Your task to perform on an android device: turn on priority inbox in the gmail app Image 0: 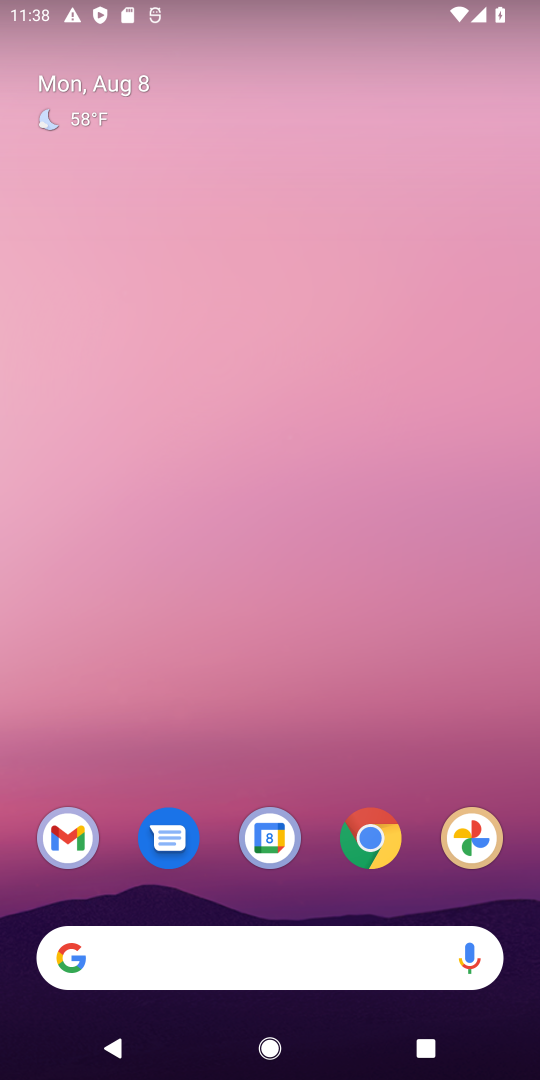
Step 0: press home button
Your task to perform on an android device: turn on priority inbox in the gmail app Image 1: 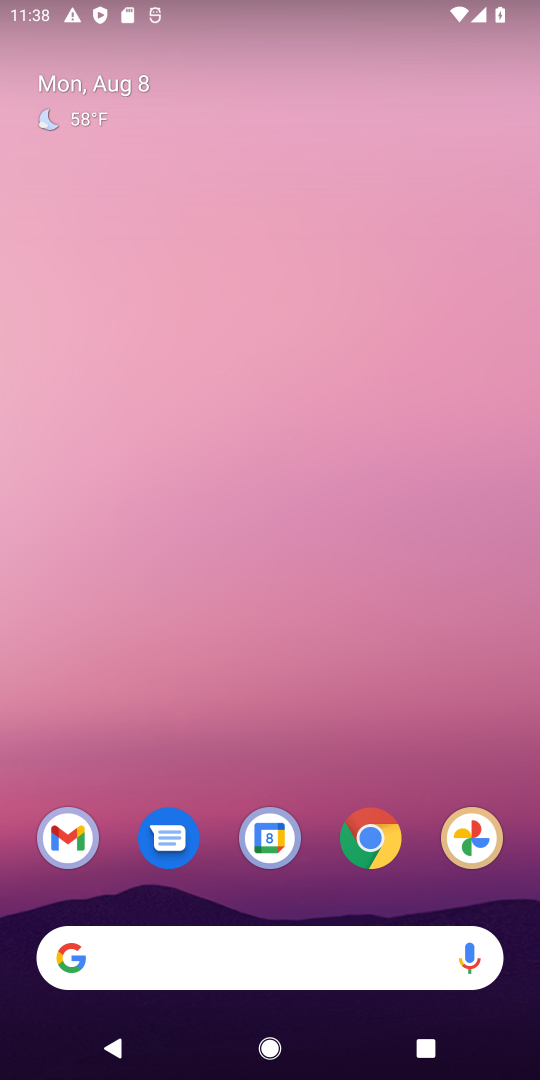
Step 1: click (69, 841)
Your task to perform on an android device: turn on priority inbox in the gmail app Image 2: 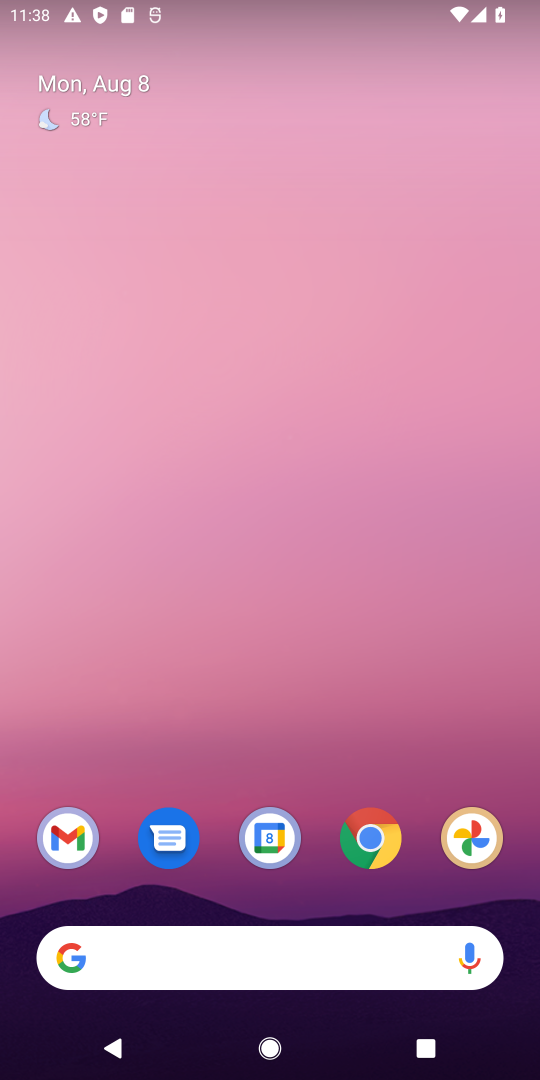
Step 2: click (71, 837)
Your task to perform on an android device: turn on priority inbox in the gmail app Image 3: 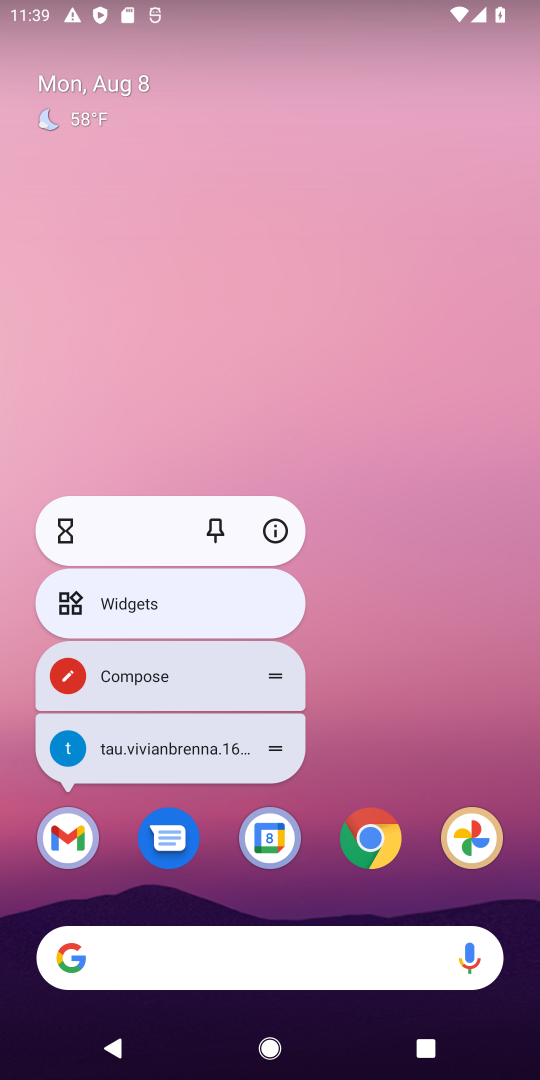
Step 3: click (71, 837)
Your task to perform on an android device: turn on priority inbox in the gmail app Image 4: 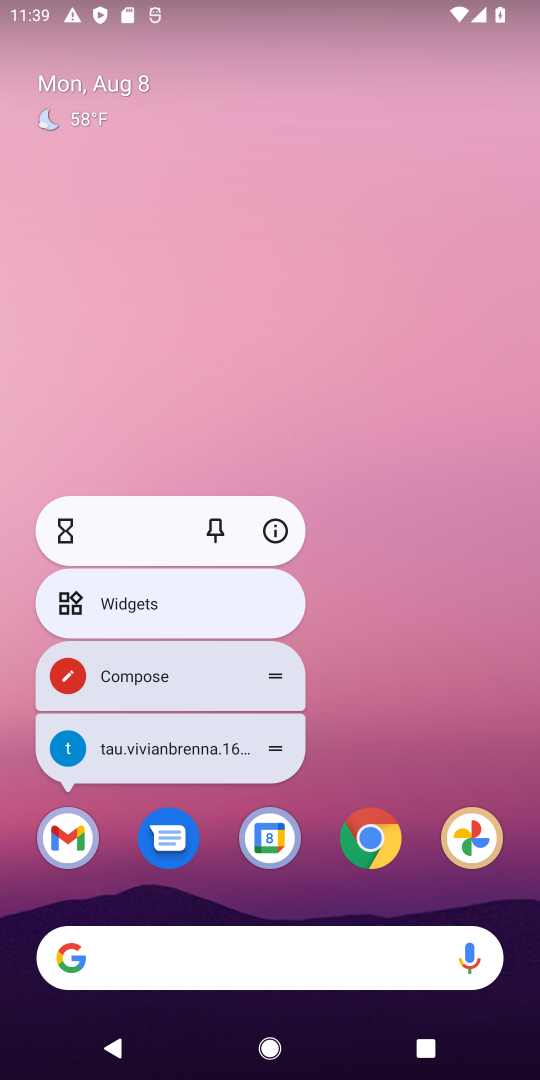
Step 4: click (71, 837)
Your task to perform on an android device: turn on priority inbox in the gmail app Image 5: 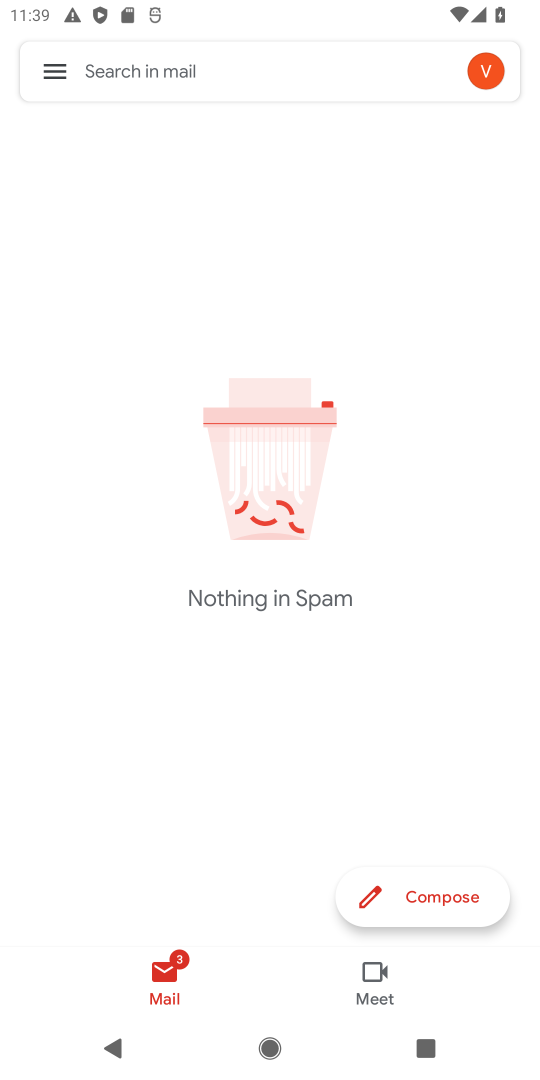
Step 5: click (63, 72)
Your task to perform on an android device: turn on priority inbox in the gmail app Image 6: 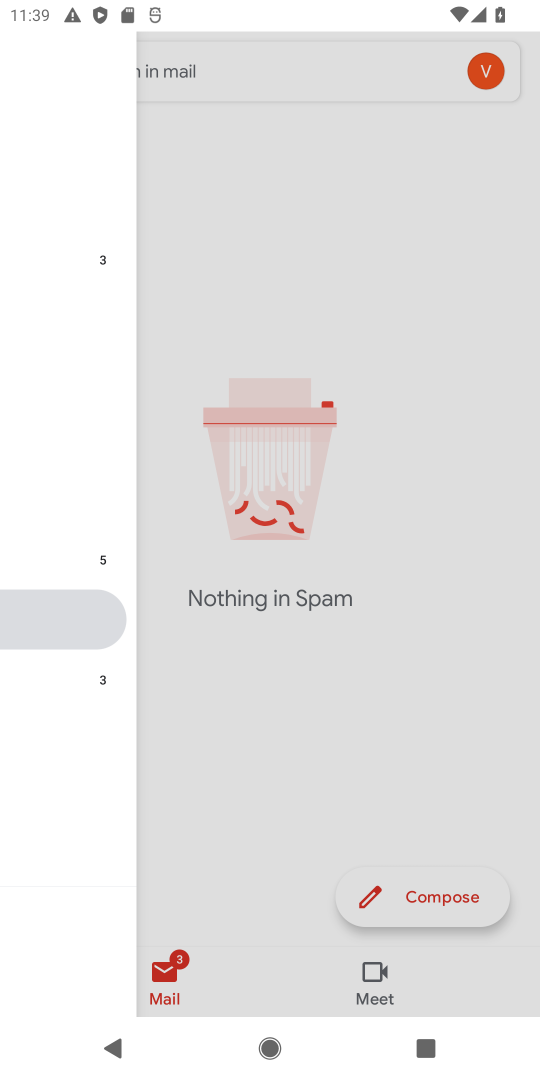
Step 6: click (63, 72)
Your task to perform on an android device: turn on priority inbox in the gmail app Image 7: 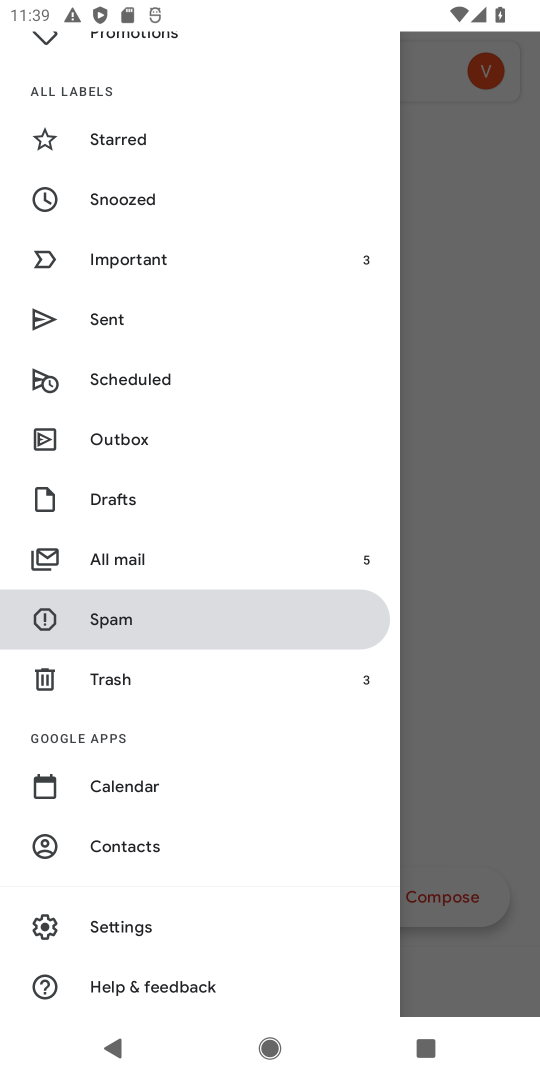
Step 7: click (113, 927)
Your task to perform on an android device: turn on priority inbox in the gmail app Image 8: 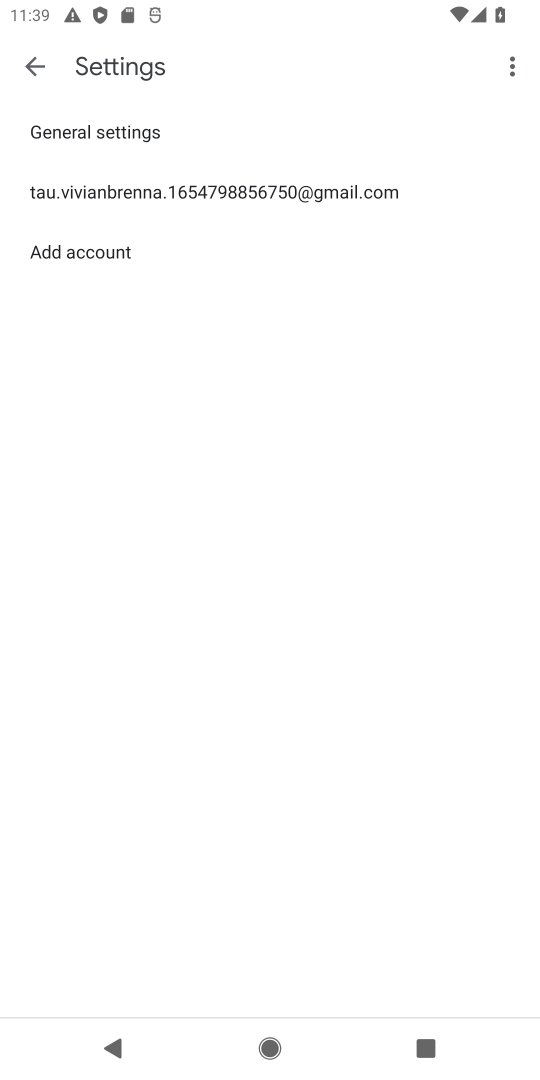
Step 8: click (158, 198)
Your task to perform on an android device: turn on priority inbox in the gmail app Image 9: 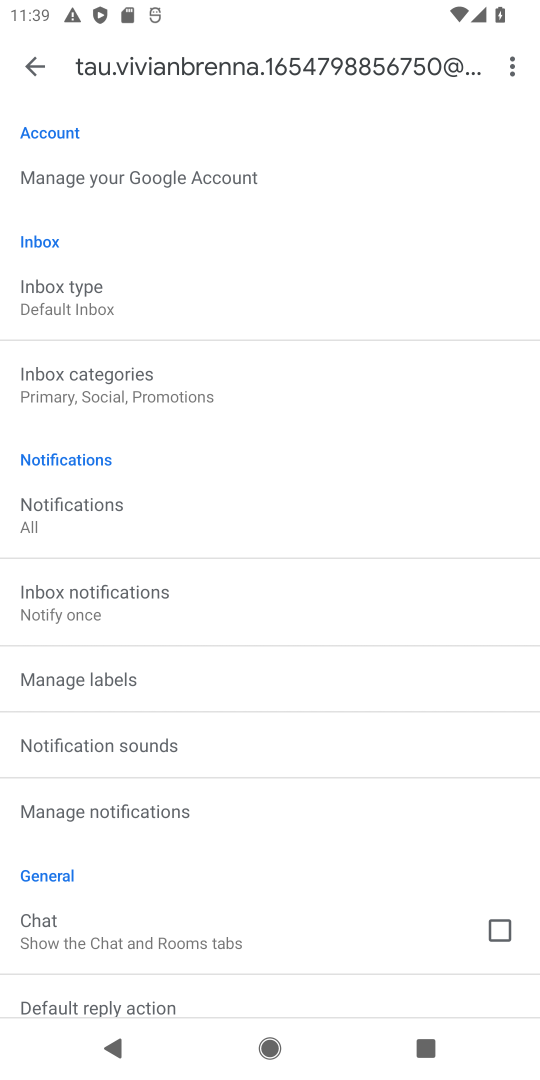
Step 9: click (53, 281)
Your task to perform on an android device: turn on priority inbox in the gmail app Image 10: 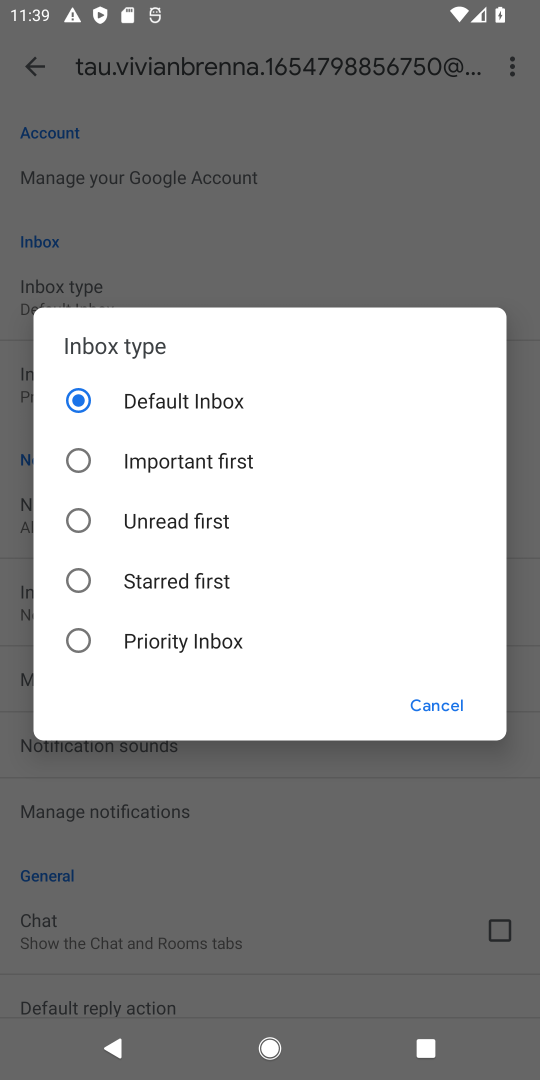
Step 10: click (78, 644)
Your task to perform on an android device: turn on priority inbox in the gmail app Image 11: 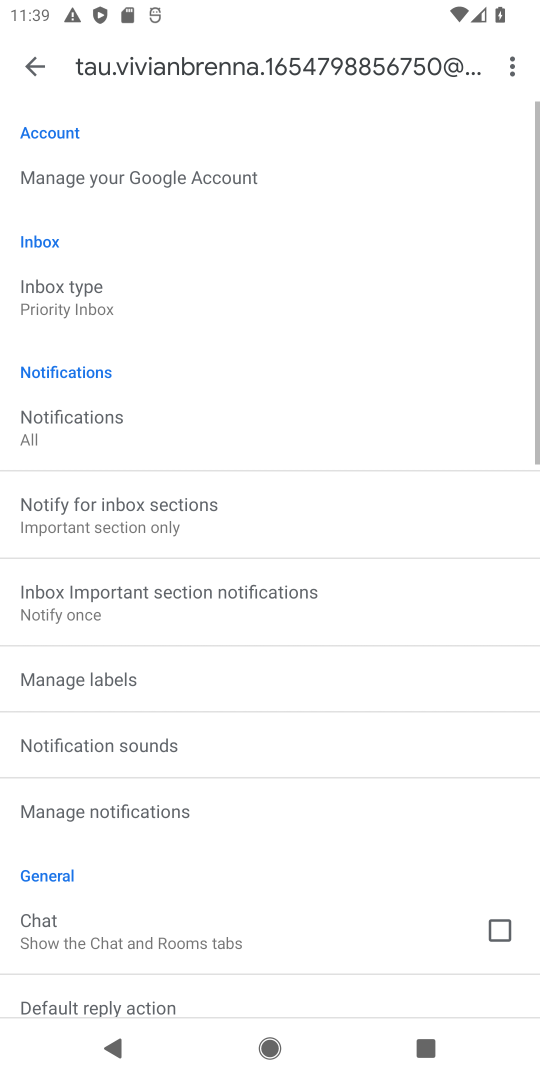
Step 11: task complete